Your task to perform on an android device: Find coffee shops on Maps Image 0: 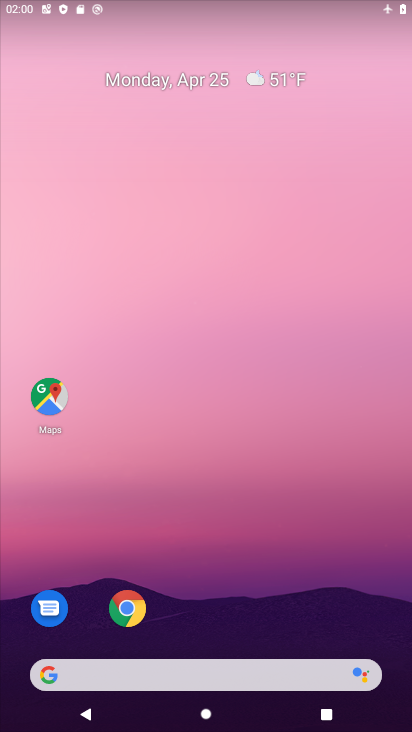
Step 0: click (43, 396)
Your task to perform on an android device: Find coffee shops on Maps Image 1: 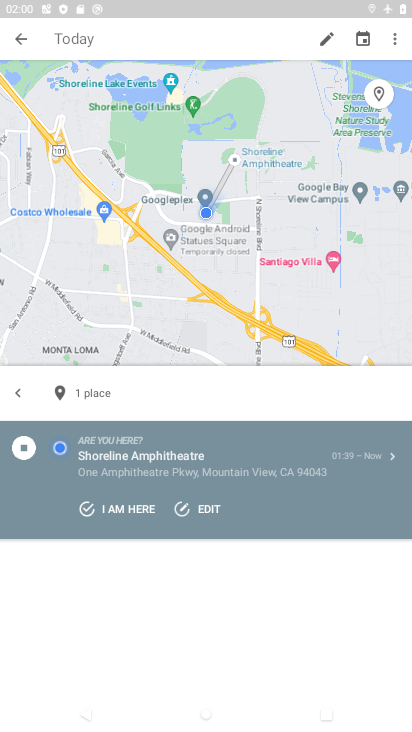
Step 1: click (197, 33)
Your task to perform on an android device: Find coffee shops on Maps Image 2: 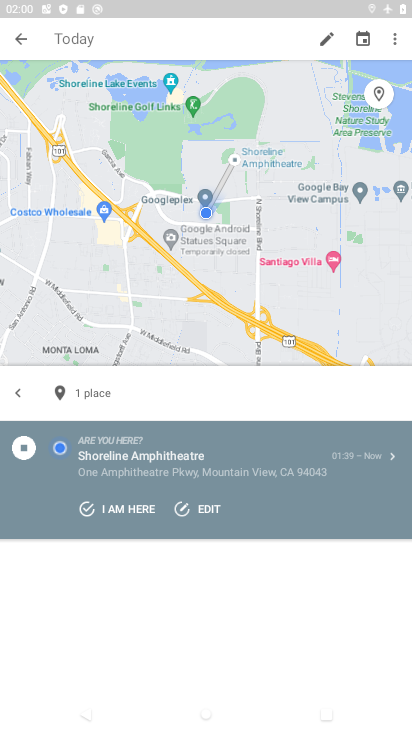
Step 2: click (61, 37)
Your task to perform on an android device: Find coffee shops on Maps Image 3: 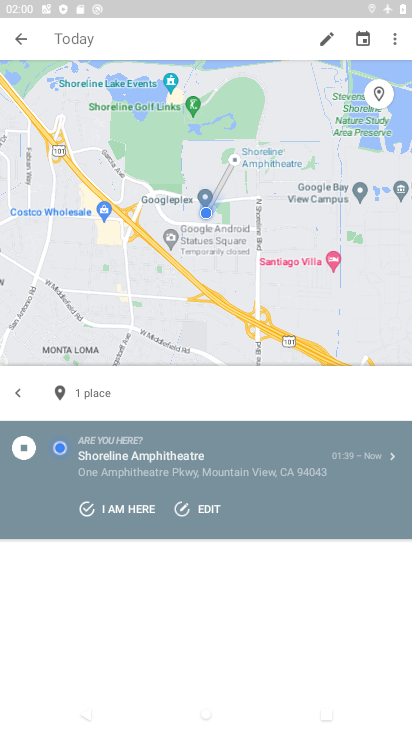
Step 3: click (24, 35)
Your task to perform on an android device: Find coffee shops on Maps Image 4: 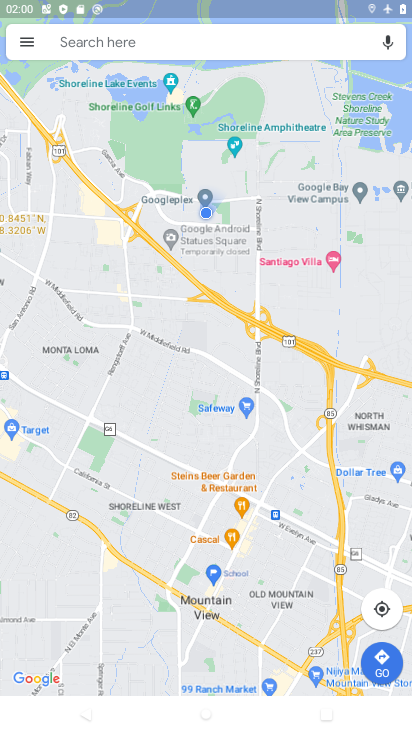
Step 4: click (100, 44)
Your task to perform on an android device: Find coffee shops on Maps Image 5: 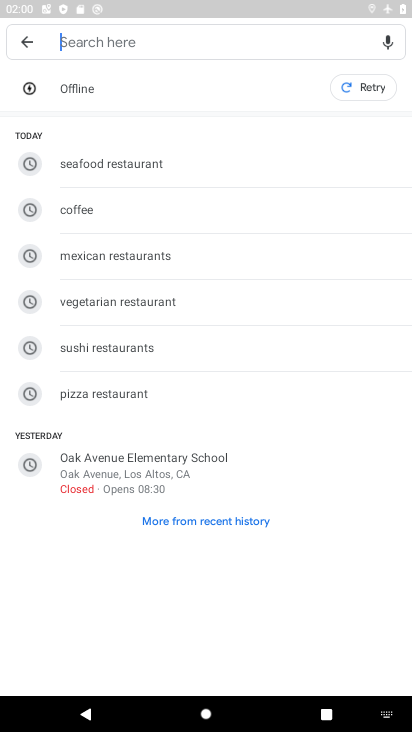
Step 5: click (97, 211)
Your task to perform on an android device: Find coffee shops on Maps Image 6: 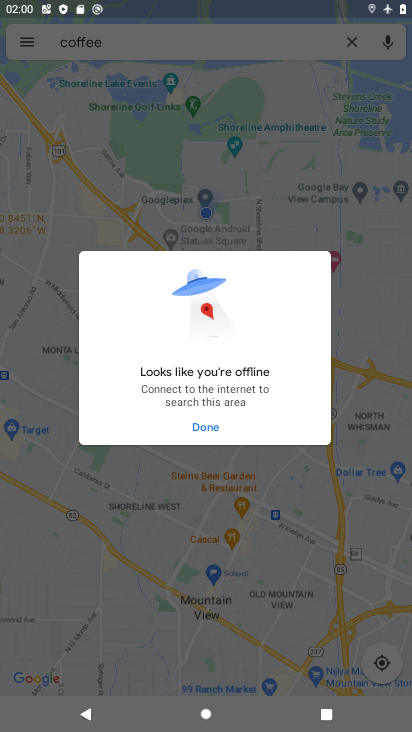
Step 6: click (196, 429)
Your task to perform on an android device: Find coffee shops on Maps Image 7: 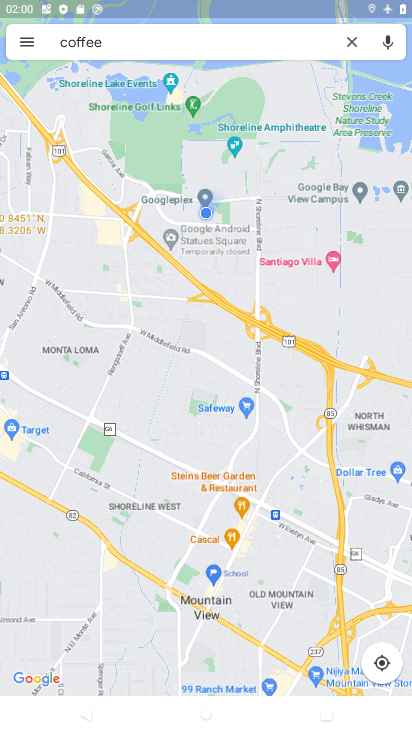
Step 7: click (123, 38)
Your task to perform on an android device: Find coffee shops on Maps Image 8: 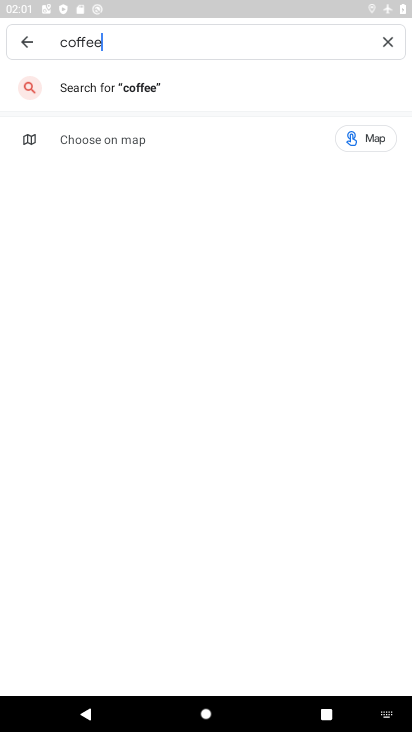
Step 8: click (124, 136)
Your task to perform on an android device: Find coffee shops on Maps Image 9: 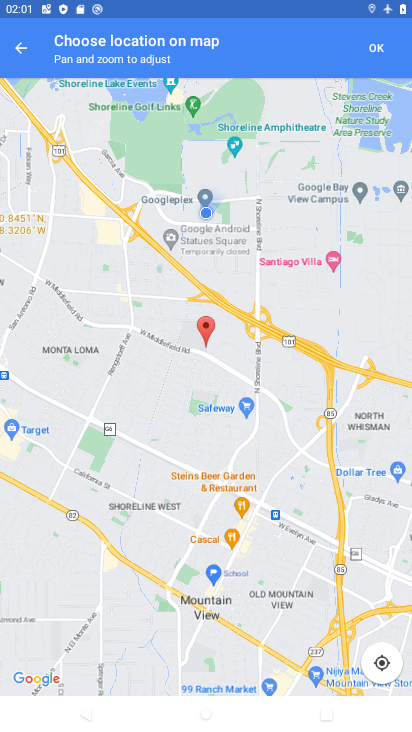
Step 9: click (379, 52)
Your task to perform on an android device: Find coffee shops on Maps Image 10: 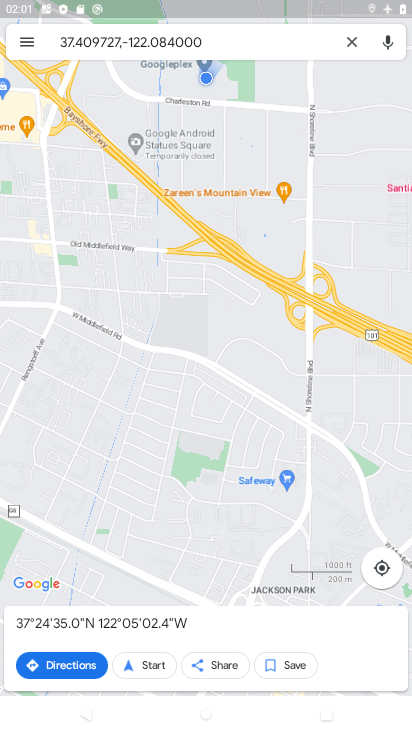
Step 10: task complete